Your task to perform on an android device: turn notification dots off Image 0: 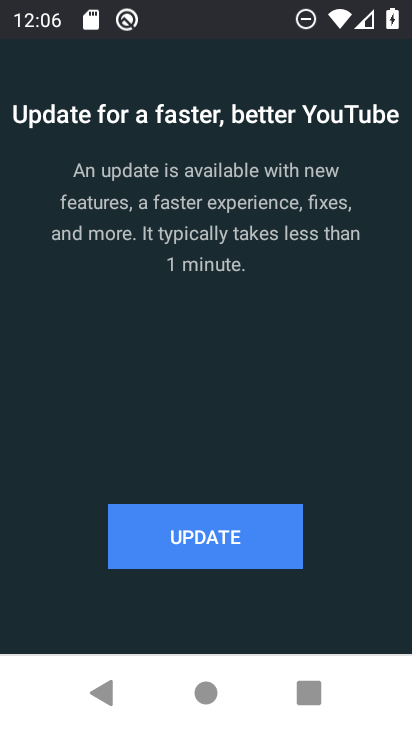
Step 0: press home button
Your task to perform on an android device: turn notification dots off Image 1: 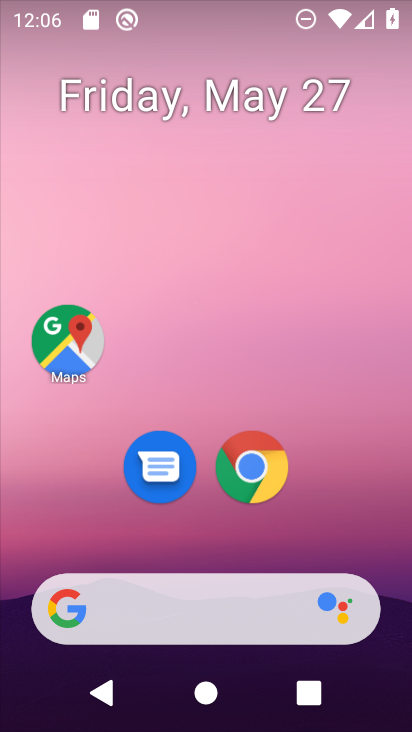
Step 1: drag from (203, 375) to (219, 0)
Your task to perform on an android device: turn notification dots off Image 2: 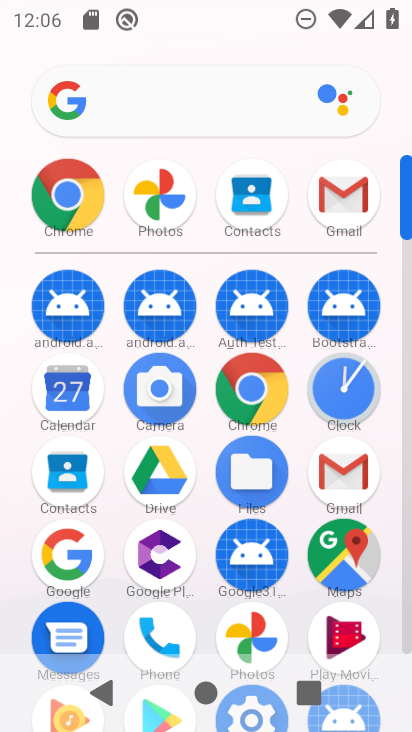
Step 2: drag from (203, 255) to (226, 8)
Your task to perform on an android device: turn notification dots off Image 3: 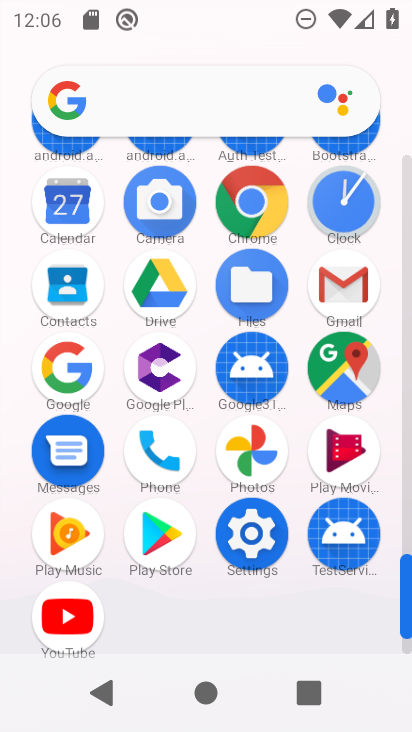
Step 3: click (274, 516)
Your task to perform on an android device: turn notification dots off Image 4: 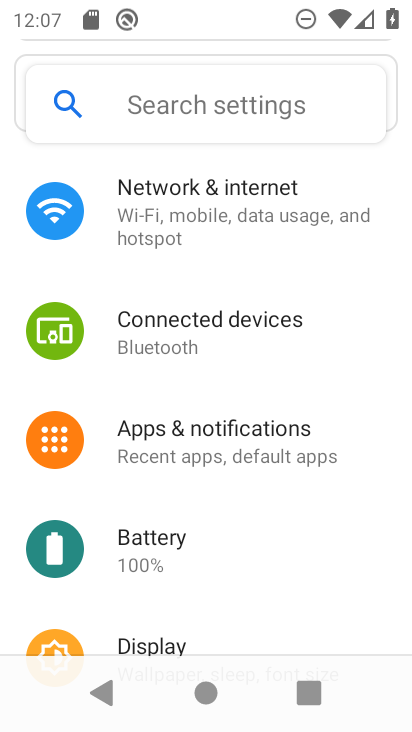
Step 4: click (198, 458)
Your task to perform on an android device: turn notification dots off Image 5: 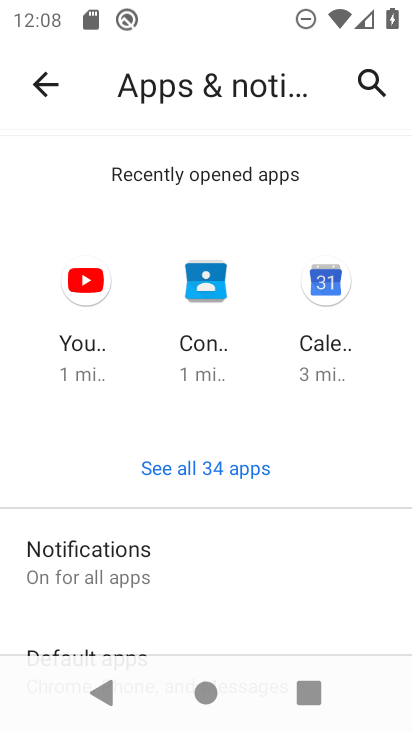
Step 5: click (150, 579)
Your task to perform on an android device: turn notification dots off Image 6: 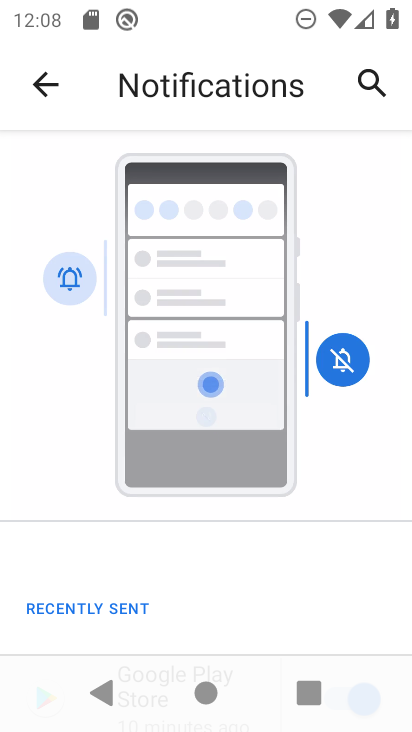
Step 6: drag from (148, 627) to (214, 109)
Your task to perform on an android device: turn notification dots off Image 7: 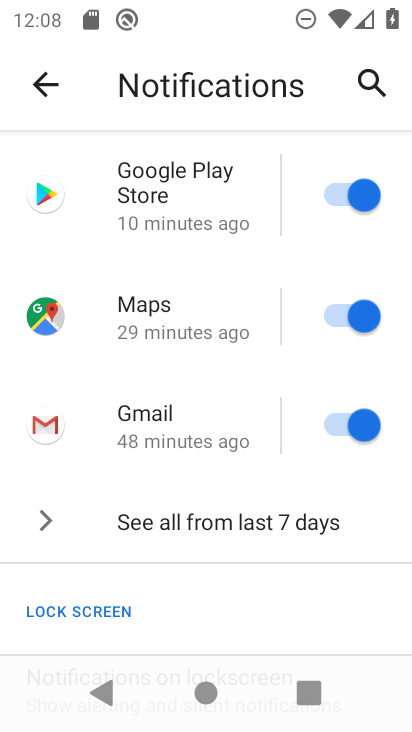
Step 7: drag from (215, 511) to (203, 7)
Your task to perform on an android device: turn notification dots off Image 8: 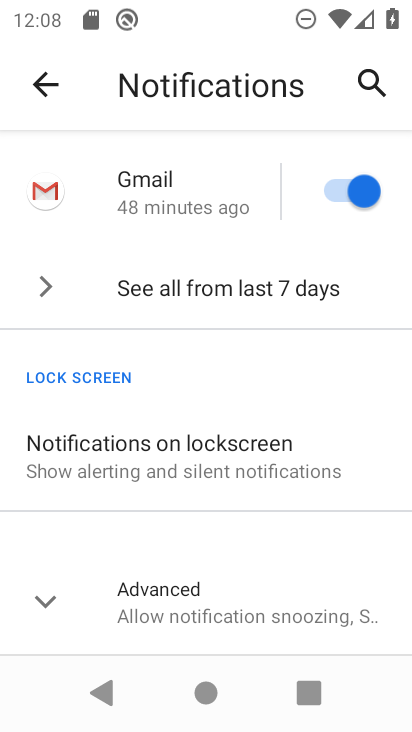
Step 8: drag from (122, 531) to (173, 52)
Your task to perform on an android device: turn notification dots off Image 9: 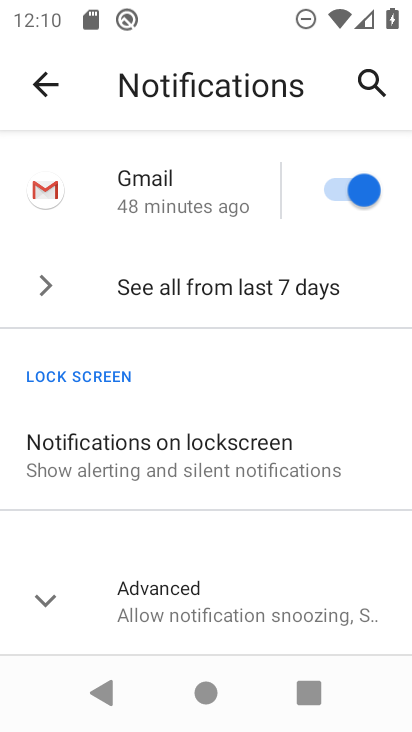
Step 9: click (200, 601)
Your task to perform on an android device: turn notification dots off Image 10: 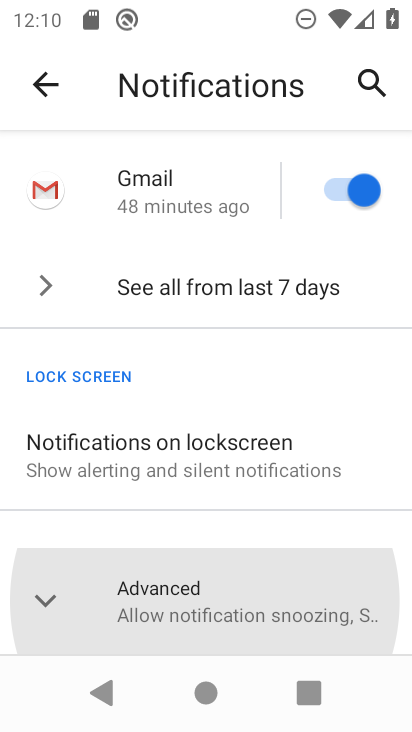
Step 10: drag from (195, 552) to (199, 208)
Your task to perform on an android device: turn notification dots off Image 11: 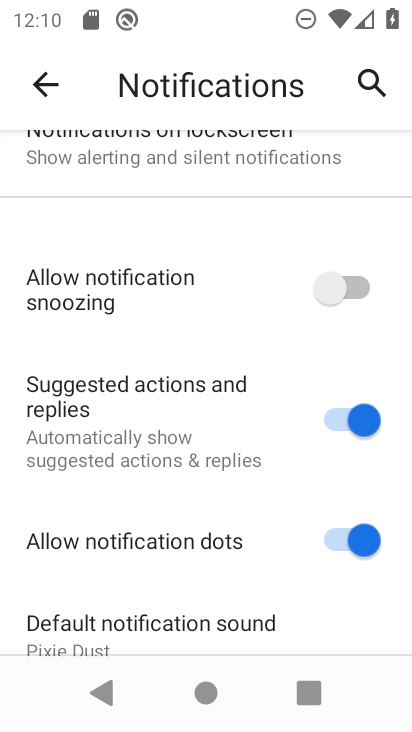
Step 11: click (358, 538)
Your task to perform on an android device: turn notification dots off Image 12: 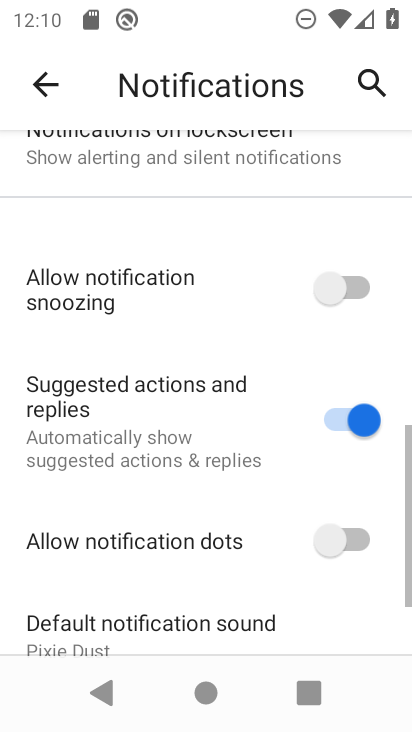
Step 12: task complete